Your task to perform on an android device: delete the emails in spam in the gmail app Image 0: 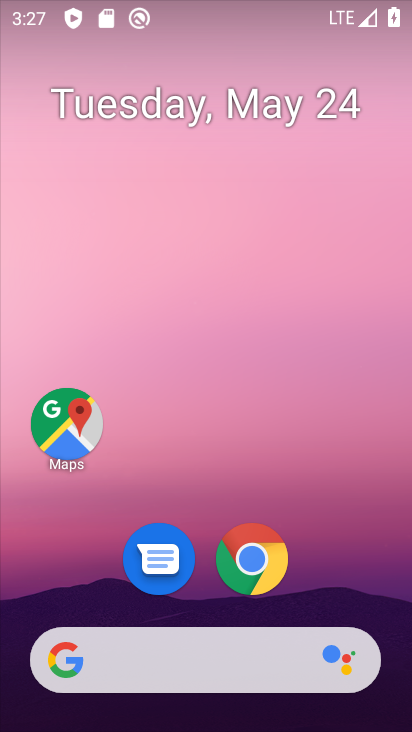
Step 0: drag from (324, 595) to (193, 174)
Your task to perform on an android device: delete the emails in spam in the gmail app Image 1: 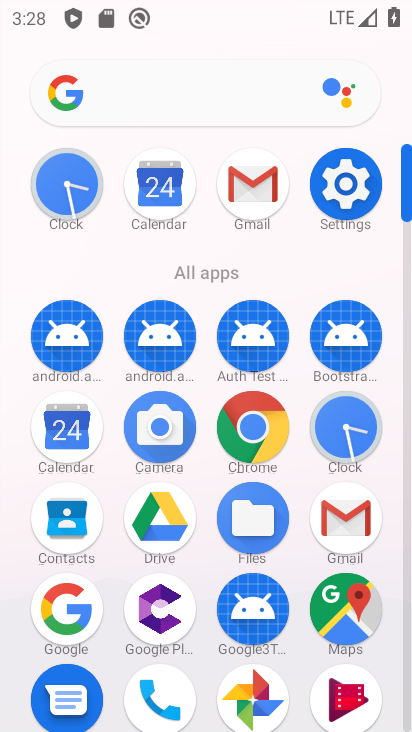
Step 1: click (253, 183)
Your task to perform on an android device: delete the emails in spam in the gmail app Image 2: 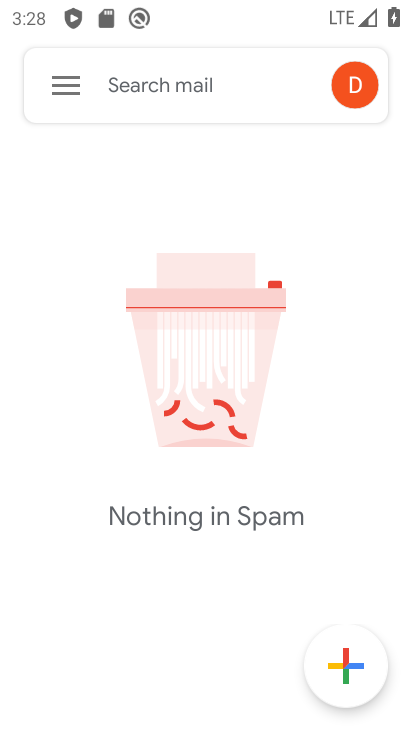
Step 2: click (65, 82)
Your task to perform on an android device: delete the emails in spam in the gmail app Image 3: 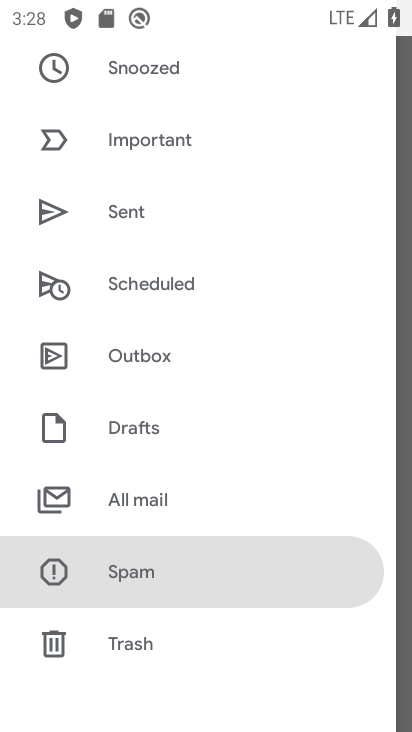
Step 3: click (136, 556)
Your task to perform on an android device: delete the emails in spam in the gmail app Image 4: 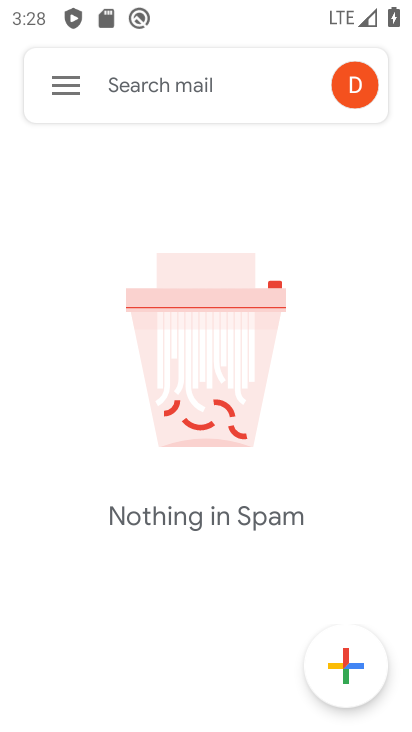
Step 4: task complete